Your task to perform on an android device: What's the news in Bolivia? Image 0: 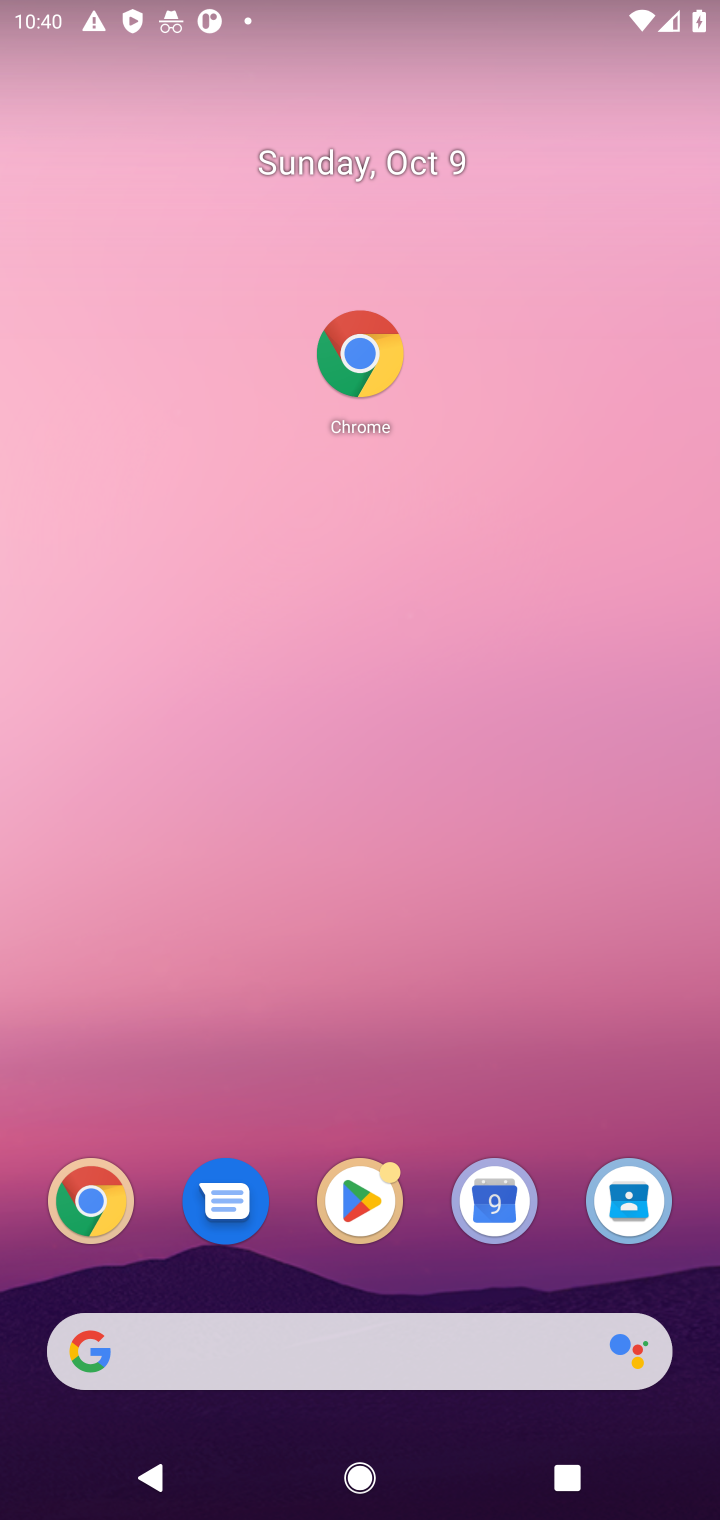
Step 0: click (83, 1212)
Your task to perform on an android device: What's the news in Bolivia? Image 1: 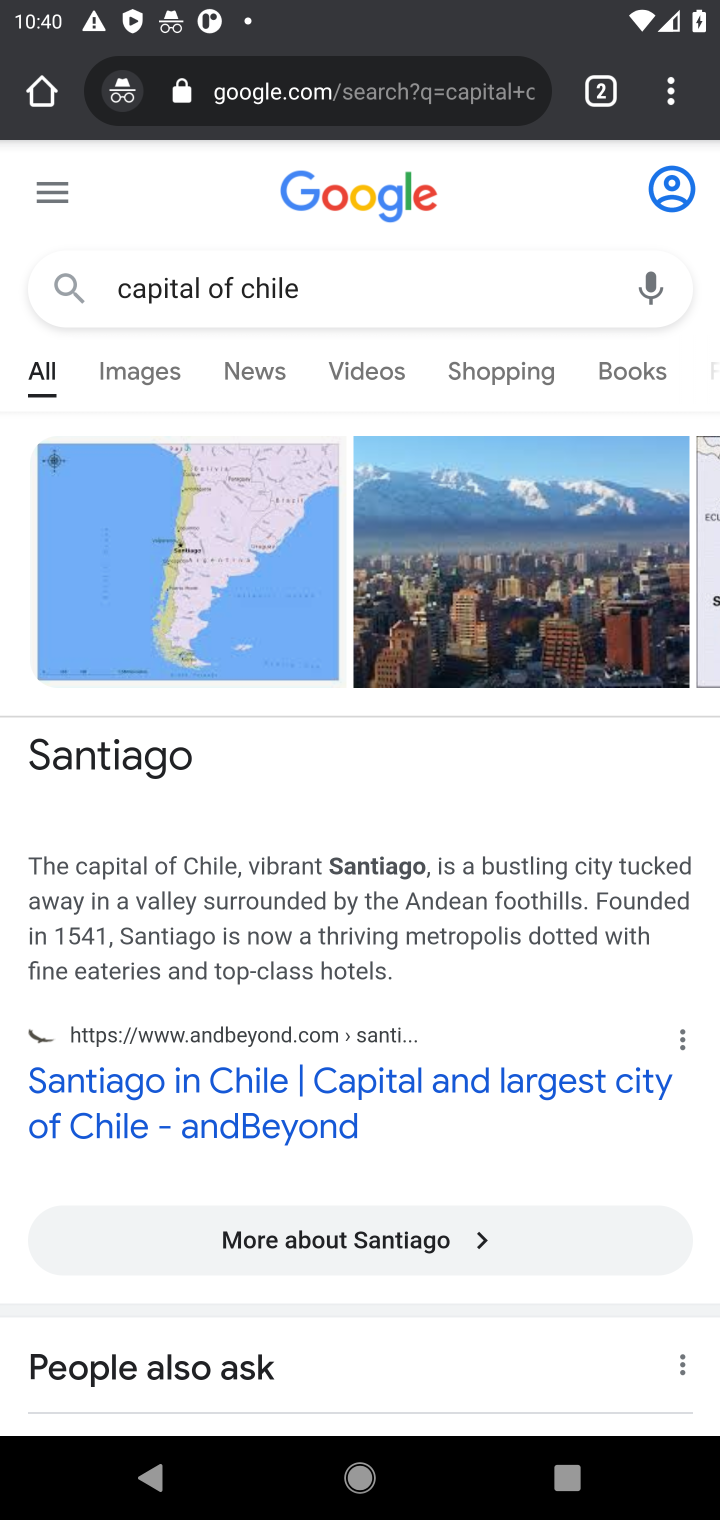
Step 1: click (313, 104)
Your task to perform on an android device: What's the news in Bolivia? Image 2: 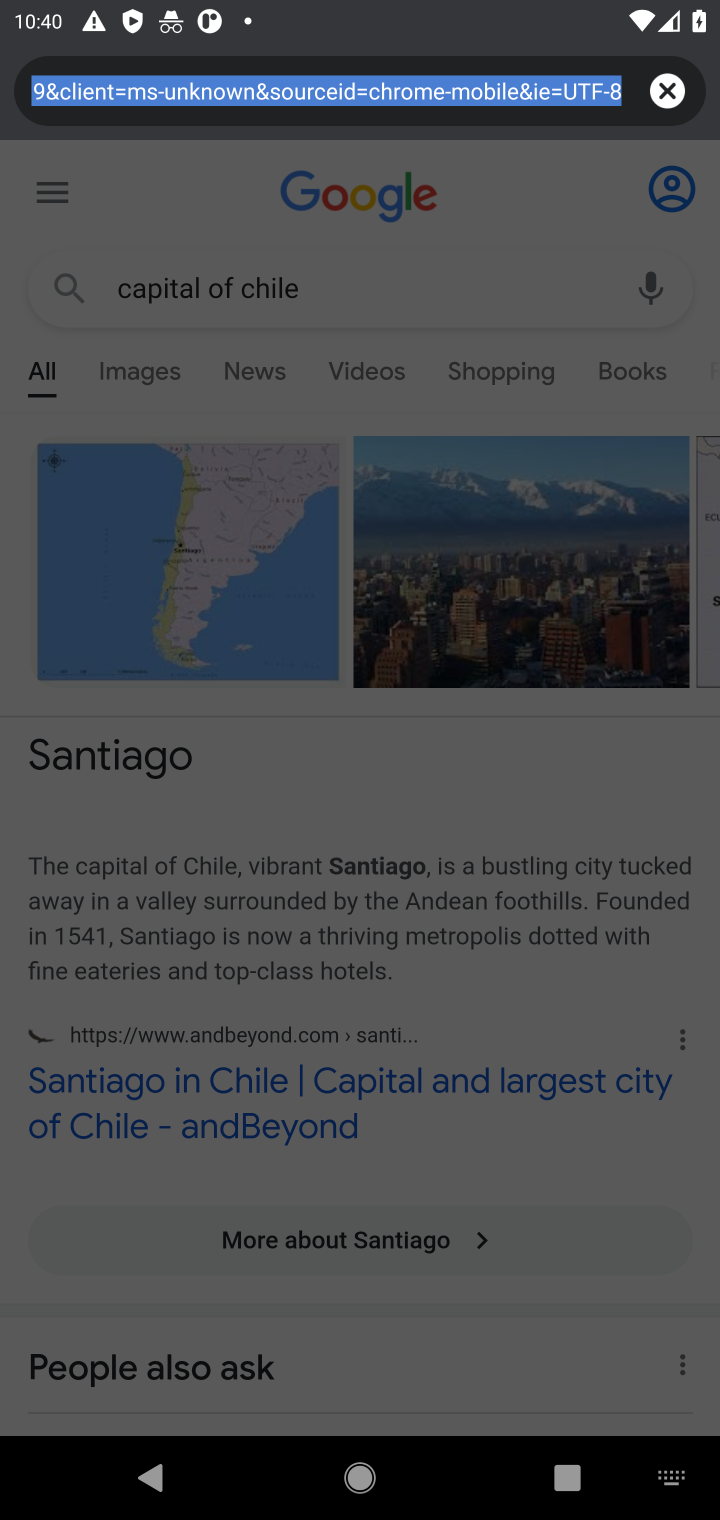
Step 2: type "whats the news in bolivia ?"
Your task to perform on an android device: What's the news in Bolivia? Image 3: 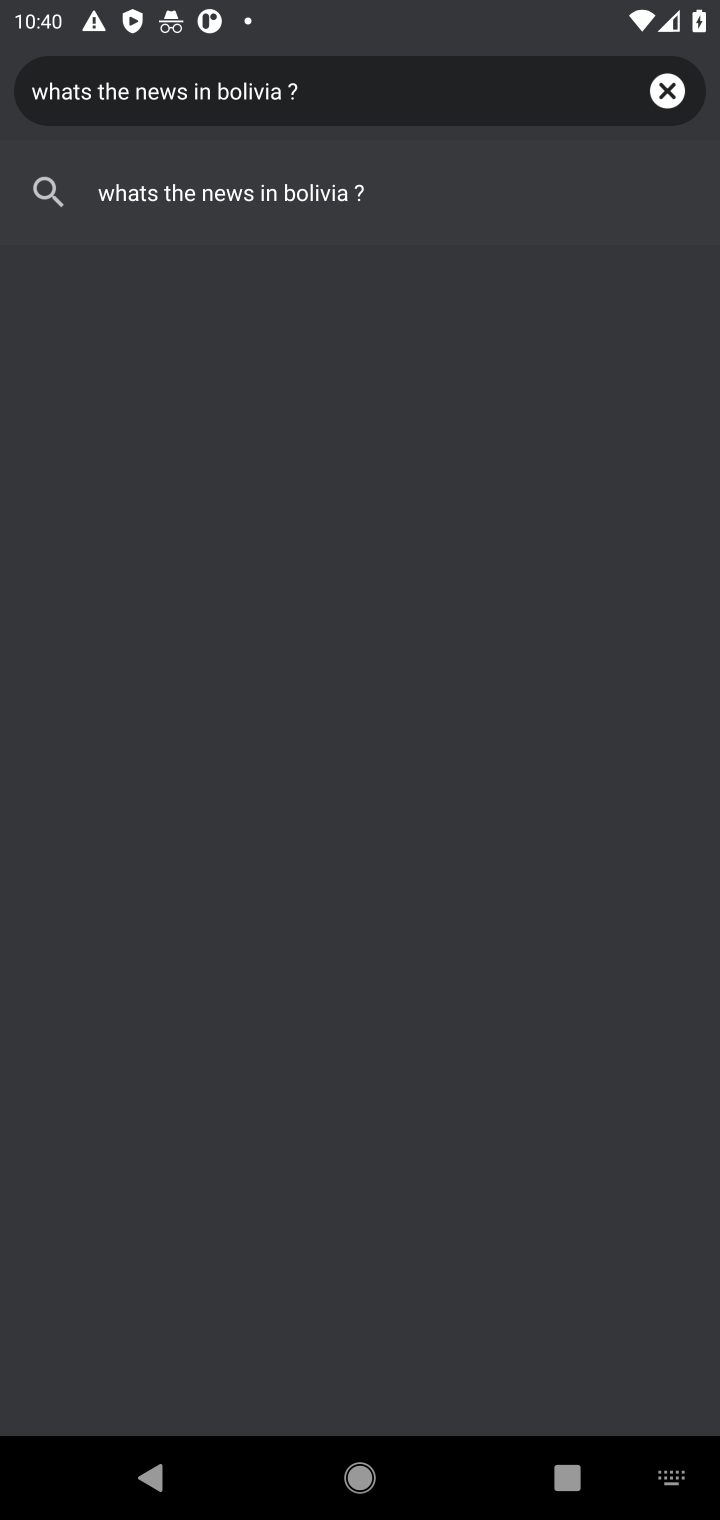
Step 3: click (264, 189)
Your task to perform on an android device: What's the news in Bolivia? Image 4: 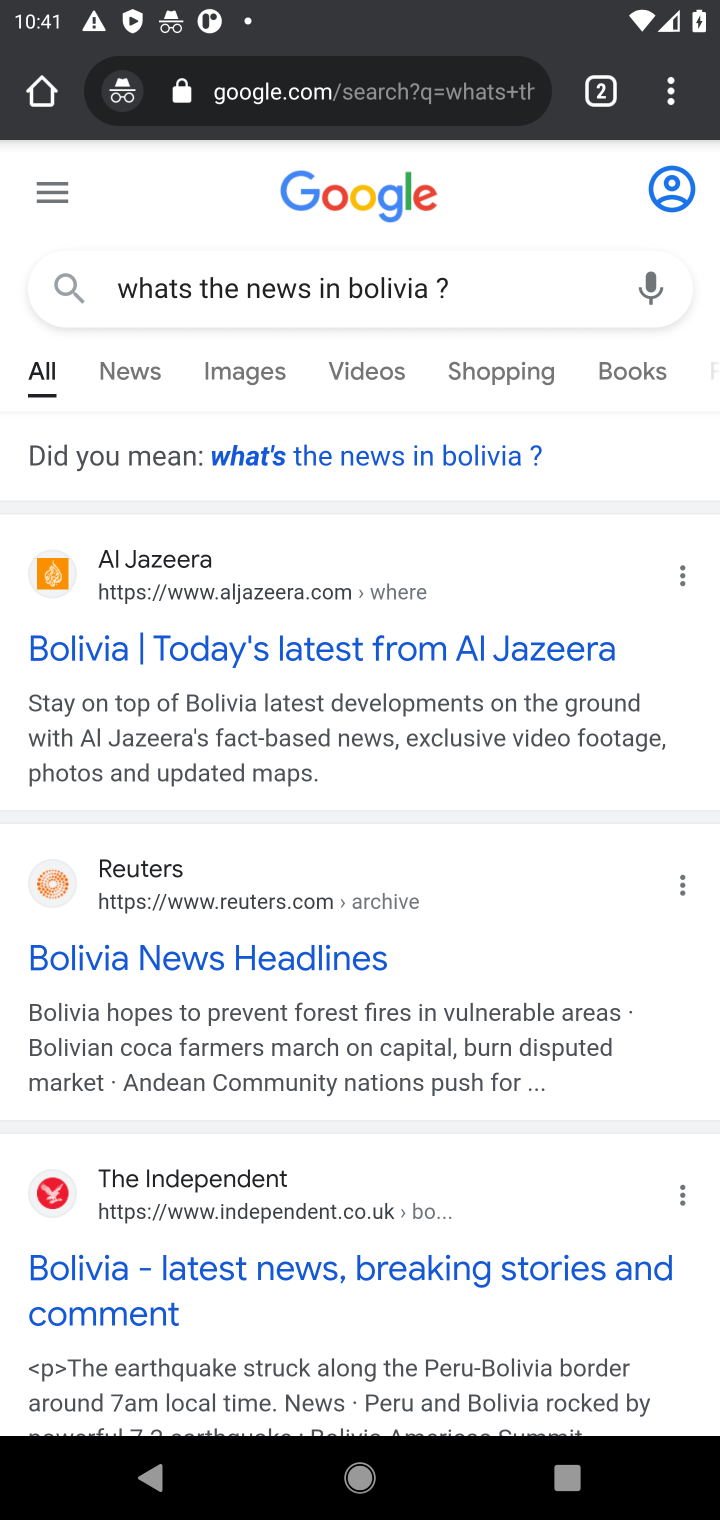
Step 4: click (362, 649)
Your task to perform on an android device: What's the news in Bolivia? Image 5: 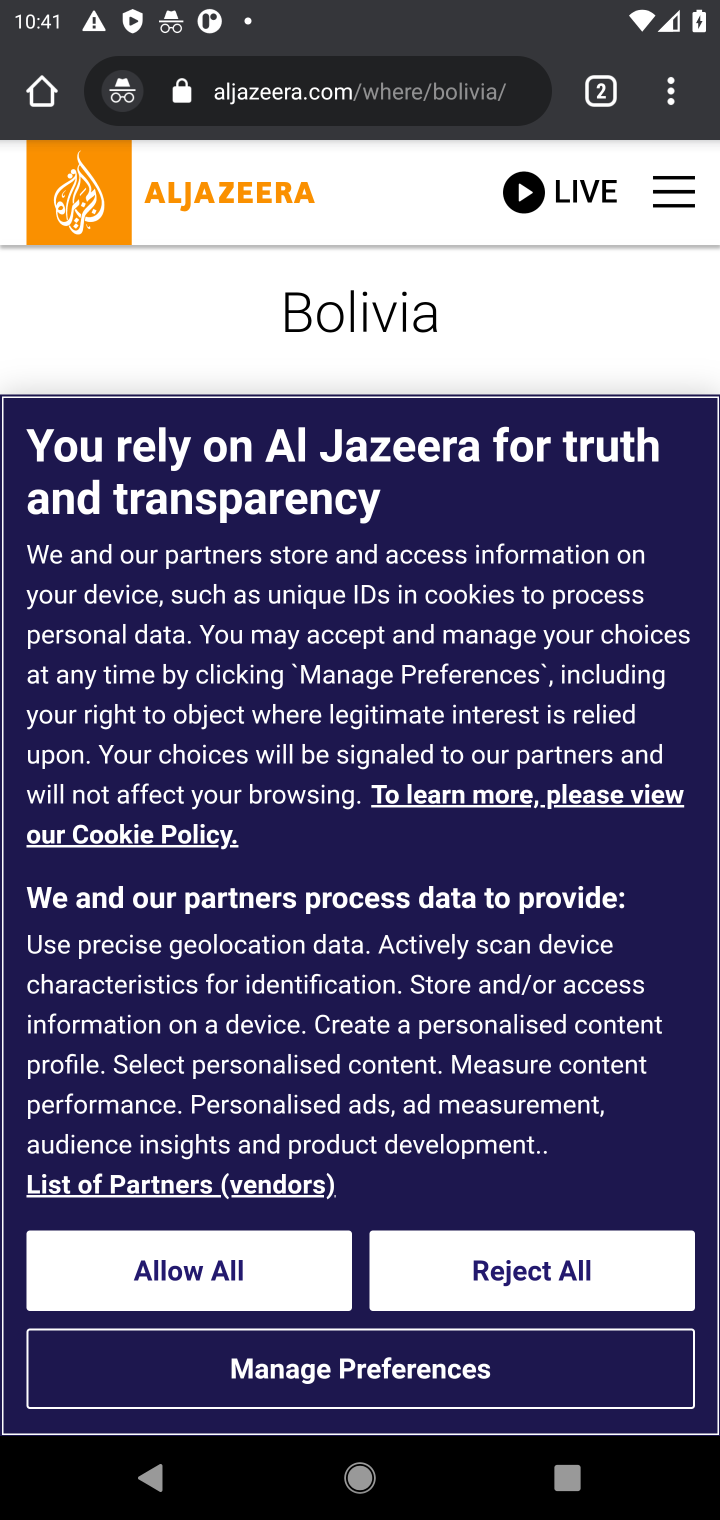
Step 5: click (279, 1279)
Your task to perform on an android device: What's the news in Bolivia? Image 6: 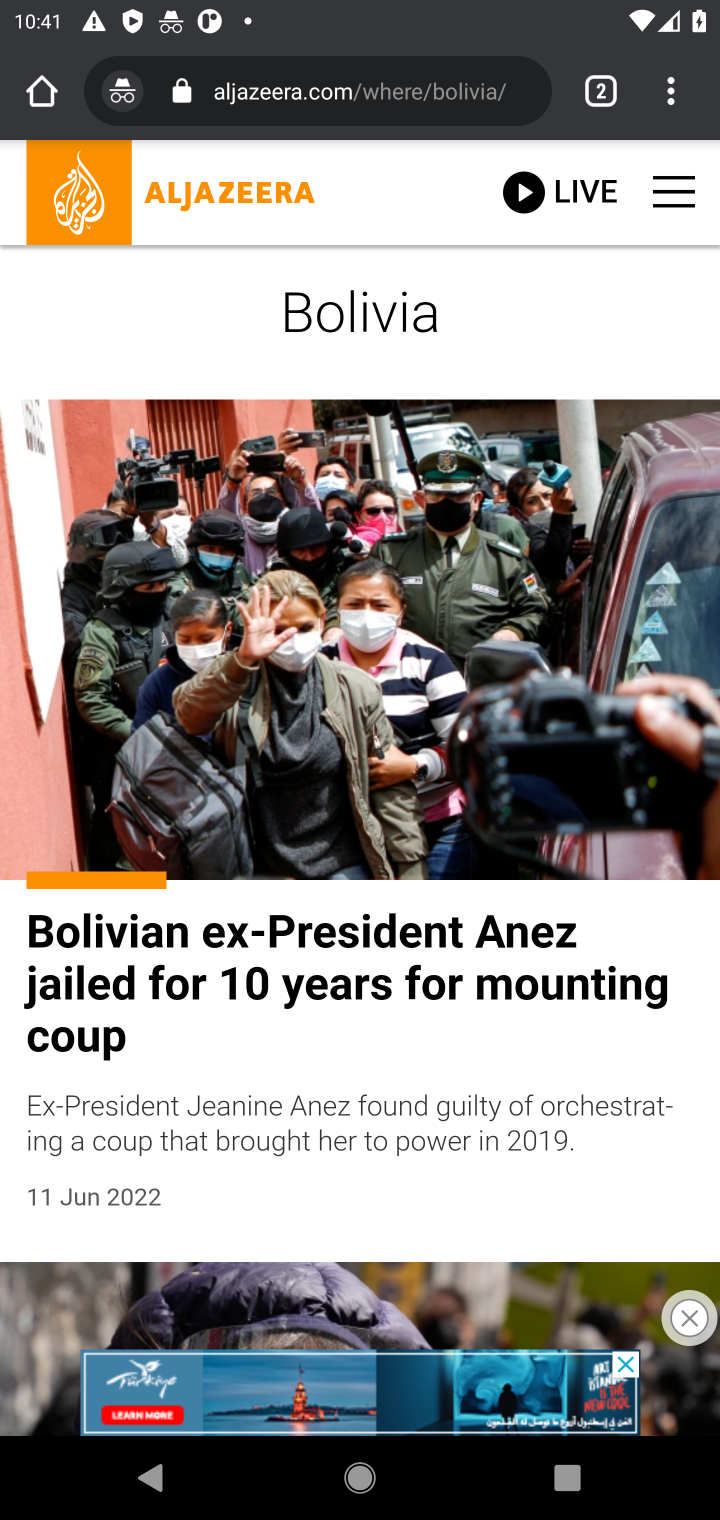
Step 6: task complete